Your task to perform on an android device: turn off airplane mode Image 0: 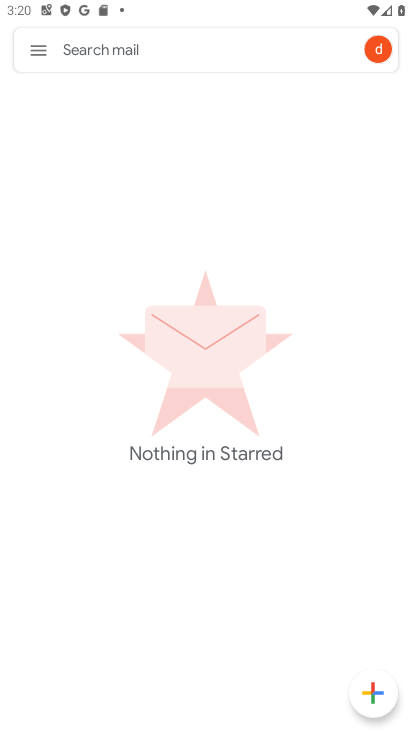
Step 0: press back button
Your task to perform on an android device: turn off airplane mode Image 1: 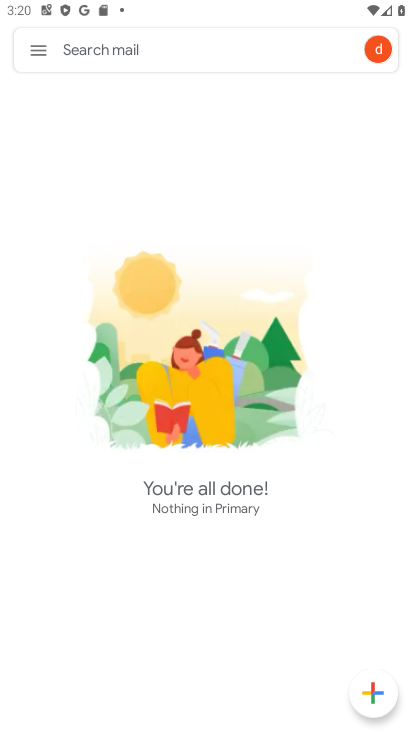
Step 1: task complete